Your task to perform on an android device: Open calendar and show me the second week of next month Image 0: 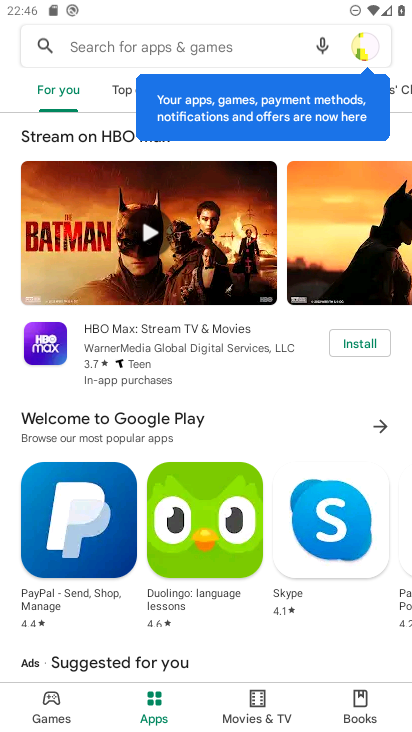
Step 0: press home button
Your task to perform on an android device: Open calendar and show me the second week of next month Image 1: 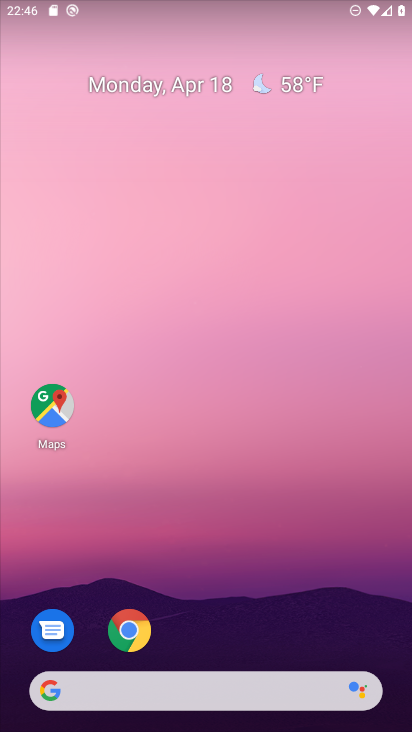
Step 1: drag from (227, 663) to (25, 47)
Your task to perform on an android device: Open calendar and show me the second week of next month Image 2: 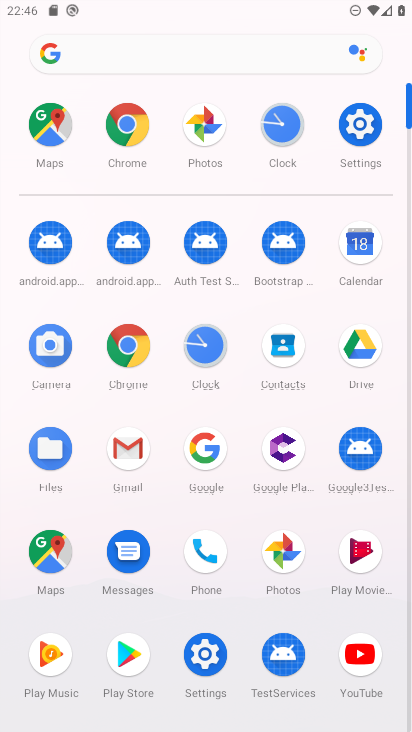
Step 2: click (362, 249)
Your task to perform on an android device: Open calendar and show me the second week of next month Image 3: 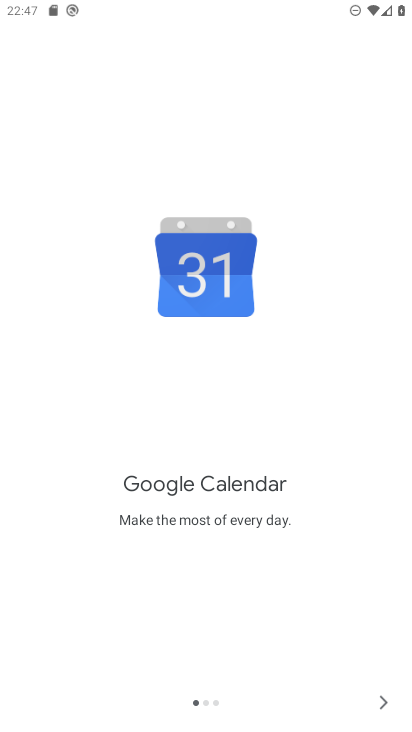
Step 3: click (380, 689)
Your task to perform on an android device: Open calendar and show me the second week of next month Image 4: 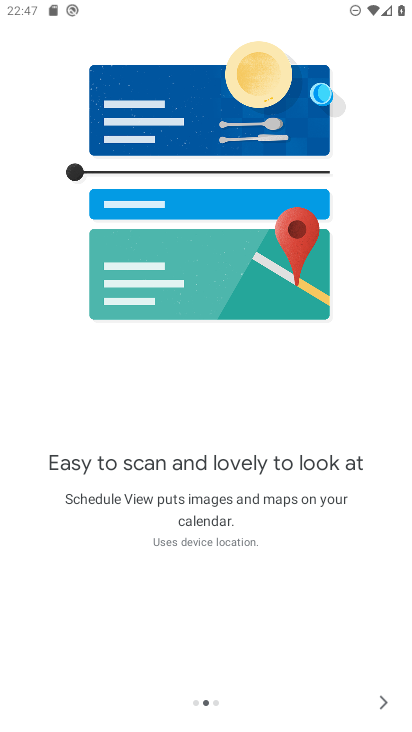
Step 4: click (379, 688)
Your task to perform on an android device: Open calendar and show me the second week of next month Image 5: 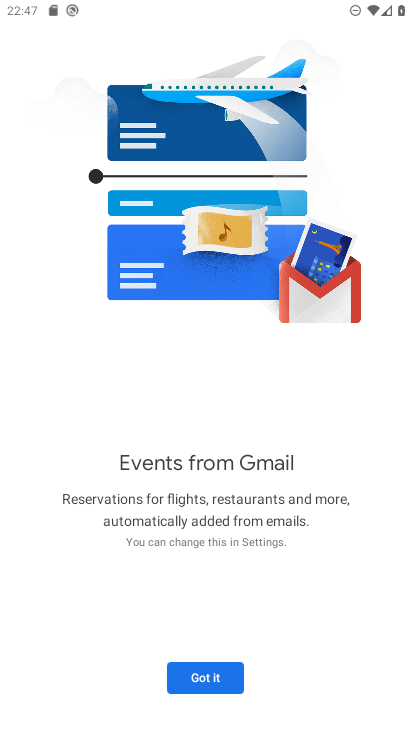
Step 5: click (232, 663)
Your task to perform on an android device: Open calendar and show me the second week of next month Image 6: 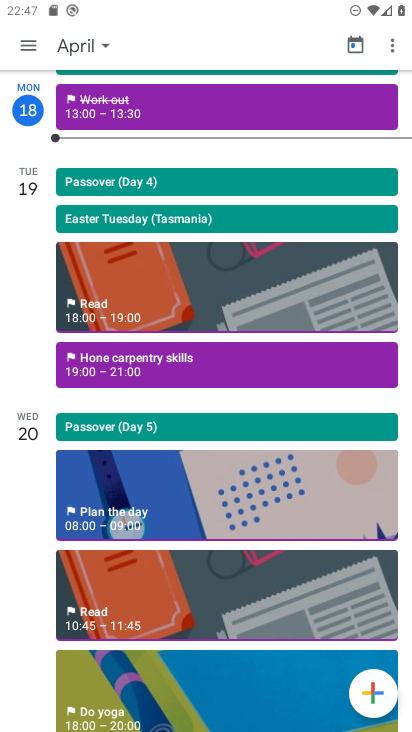
Step 6: click (32, 42)
Your task to perform on an android device: Open calendar and show me the second week of next month Image 7: 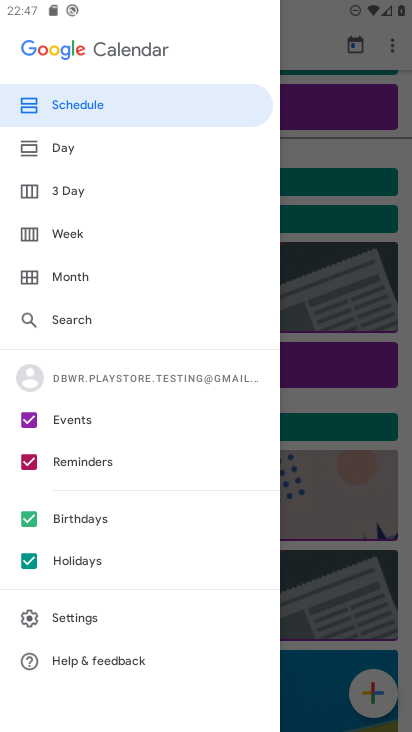
Step 7: click (61, 232)
Your task to perform on an android device: Open calendar and show me the second week of next month Image 8: 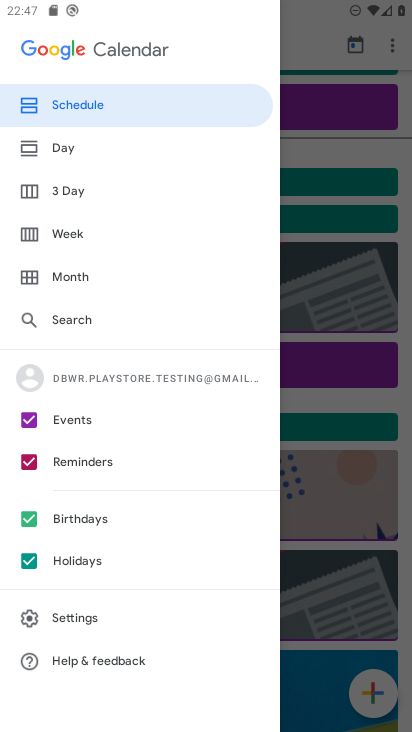
Step 8: click (53, 237)
Your task to perform on an android device: Open calendar and show me the second week of next month Image 9: 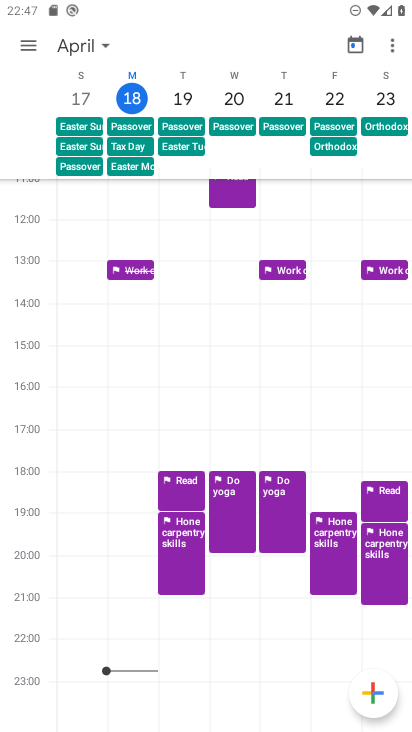
Step 9: task complete